Your task to perform on an android device: Do I have any events this weekend? Image 0: 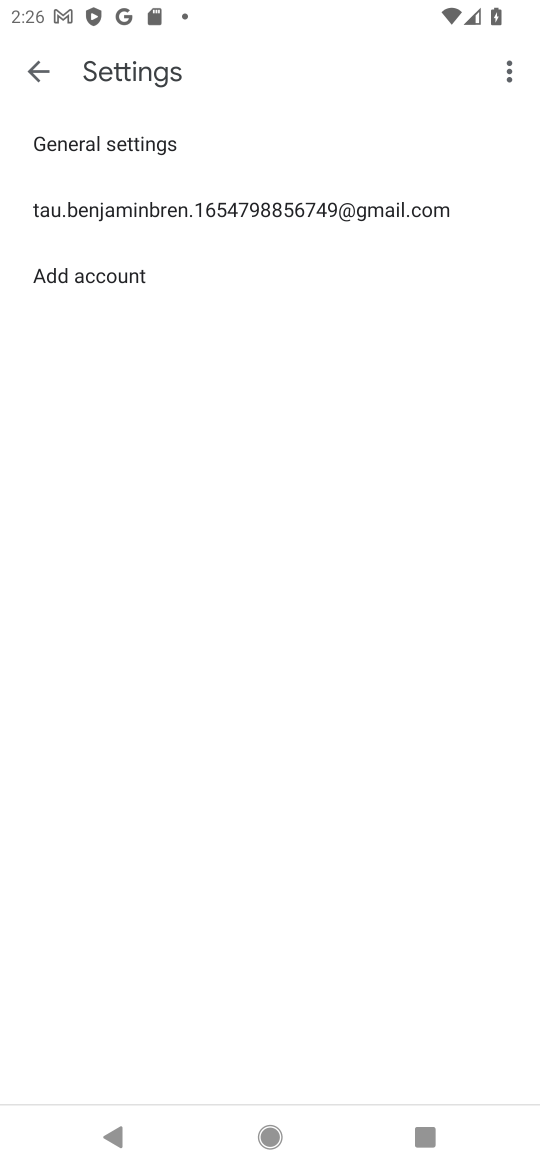
Step 0: press home button
Your task to perform on an android device: Do I have any events this weekend? Image 1: 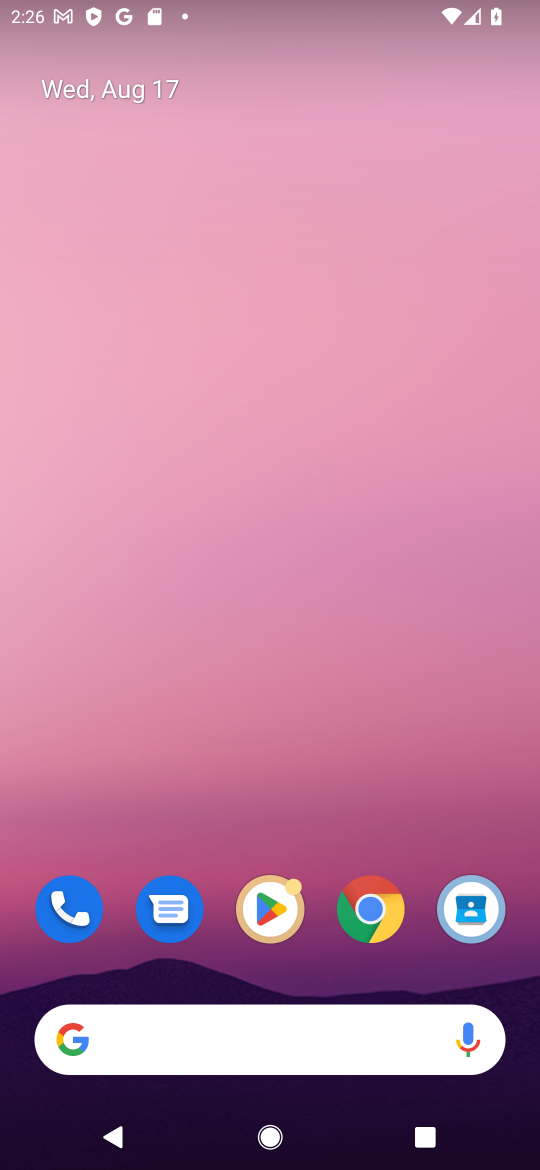
Step 1: drag from (242, 384) to (281, 134)
Your task to perform on an android device: Do I have any events this weekend? Image 2: 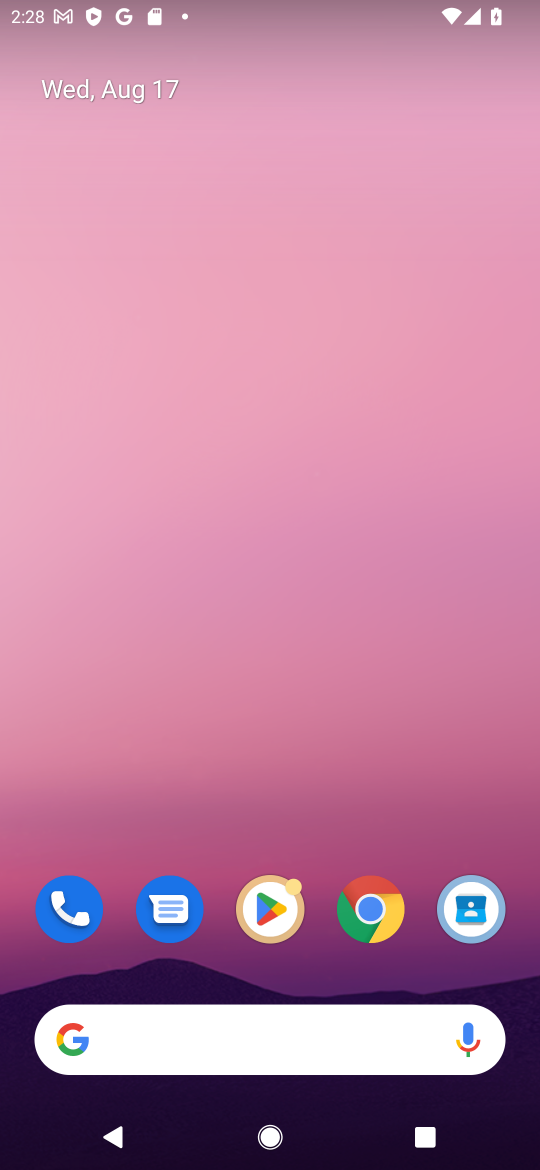
Step 2: drag from (324, 785) to (392, 21)
Your task to perform on an android device: Do I have any events this weekend? Image 3: 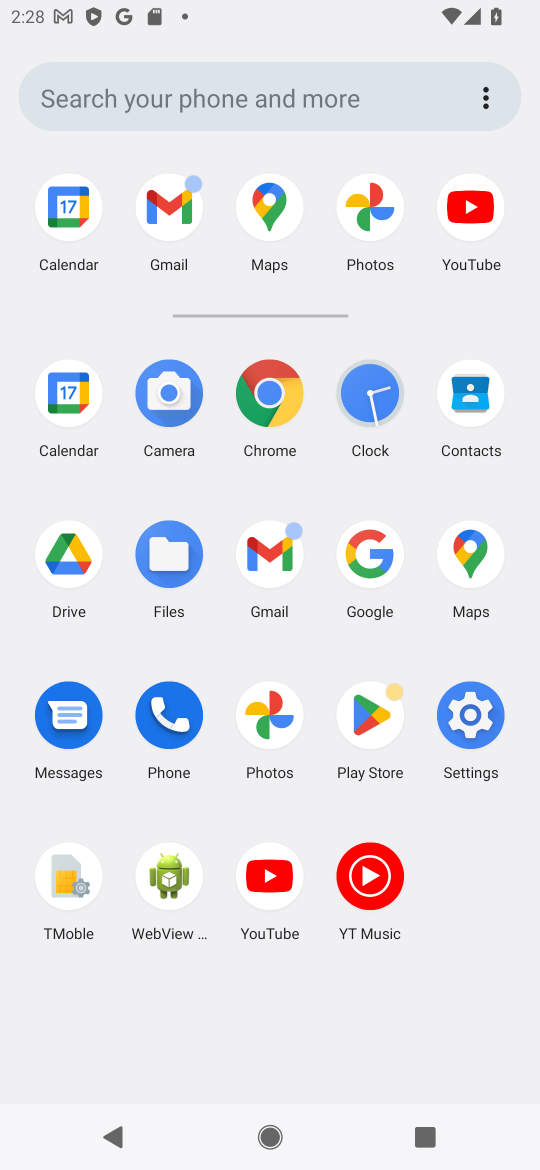
Step 3: click (66, 416)
Your task to perform on an android device: Do I have any events this weekend? Image 4: 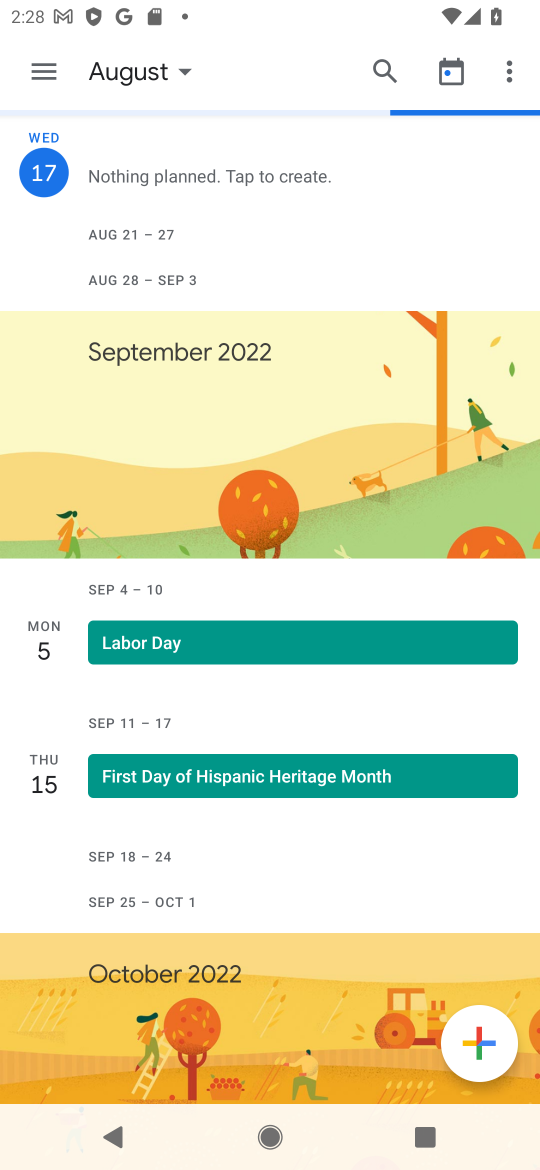
Step 4: task complete